Your task to perform on an android device: See recent photos Image 0: 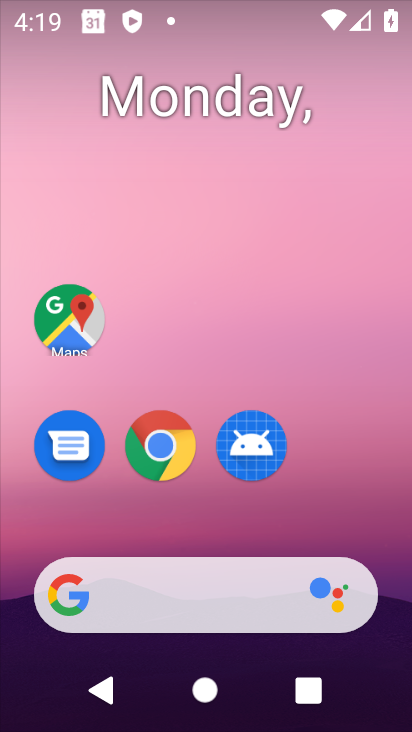
Step 0: drag from (343, 346) to (333, 241)
Your task to perform on an android device: See recent photos Image 1: 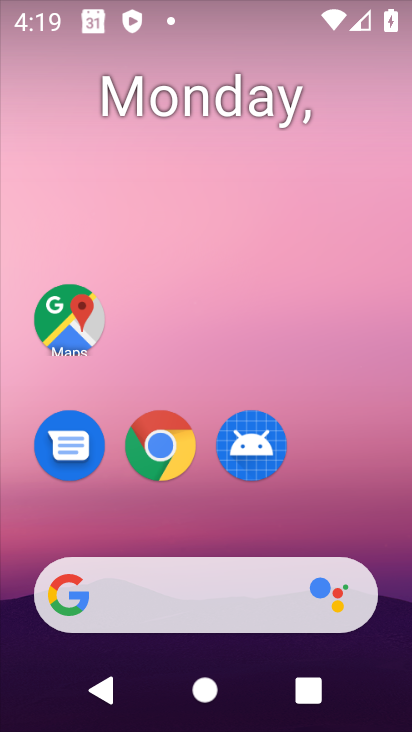
Step 1: drag from (331, 511) to (314, 35)
Your task to perform on an android device: See recent photos Image 2: 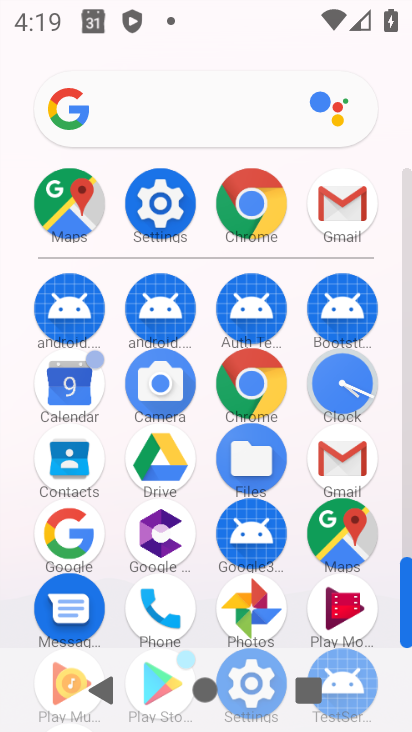
Step 2: click (235, 600)
Your task to perform on an android device: See recent photos Image 3: 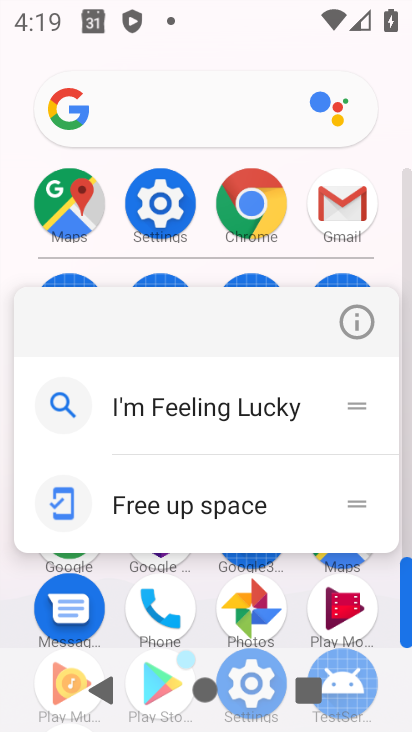
Step 3: click (235, 600)
Your task to perform on an android device: See recent photos Image 4: 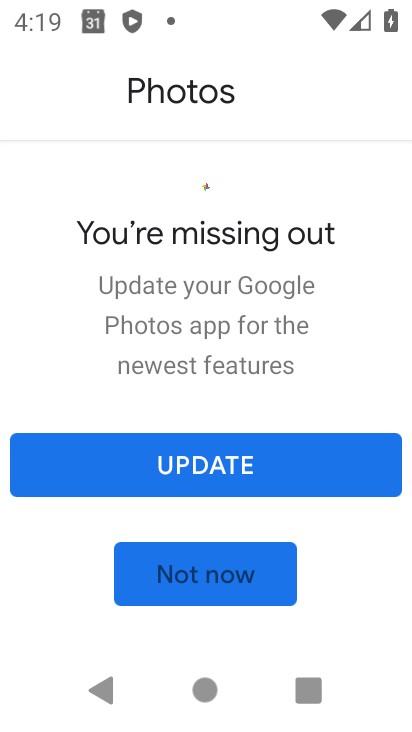
Step 4: task complete